Your task to perform on an android device: What is the recent news? Image 0: 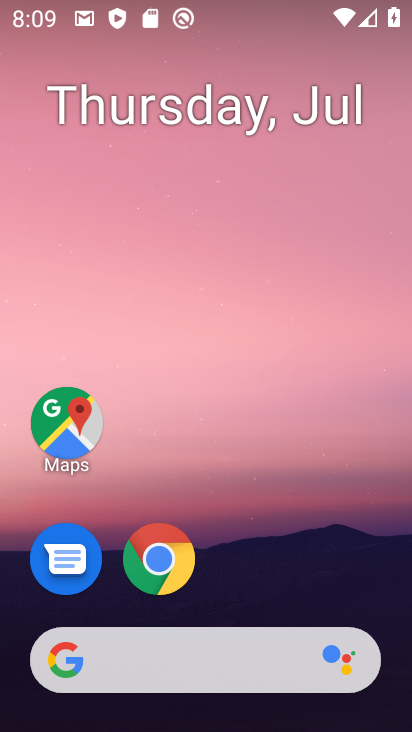
Step 0: click (193, 653)
Your task to perform on an android device: What is the recent news? Image 1: 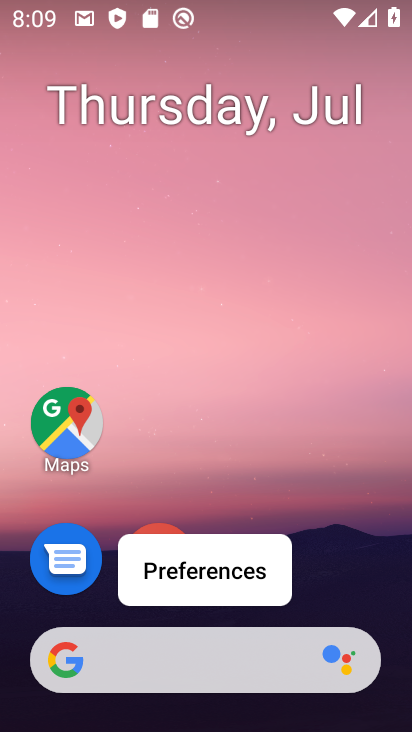
Step 1: click (193, 653)
Your task to perform on an android device: What is the recent news? Image 2: 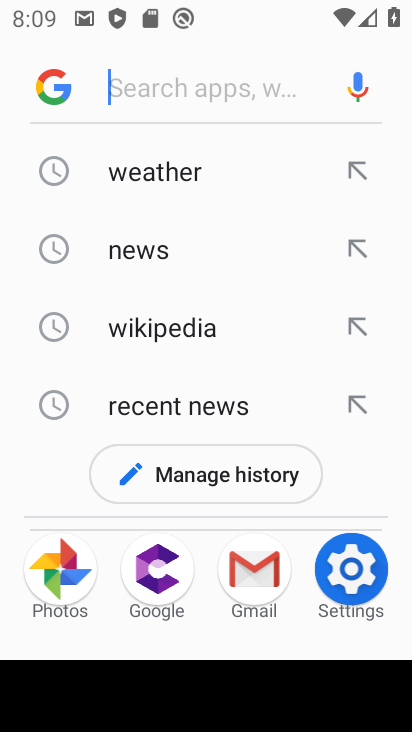
Step 2: click (157, 414)
Your task to perform on an android device: What is the recent news? Image 3: 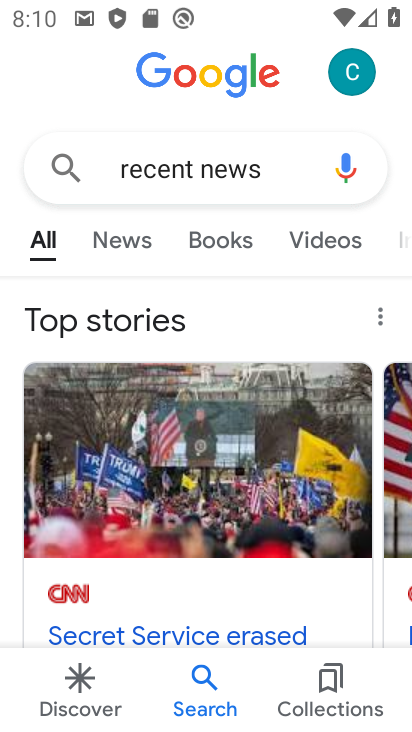
Step 3: task complete